Your task to perform on an android device: turn smart compose on in the gmail app Image 0: 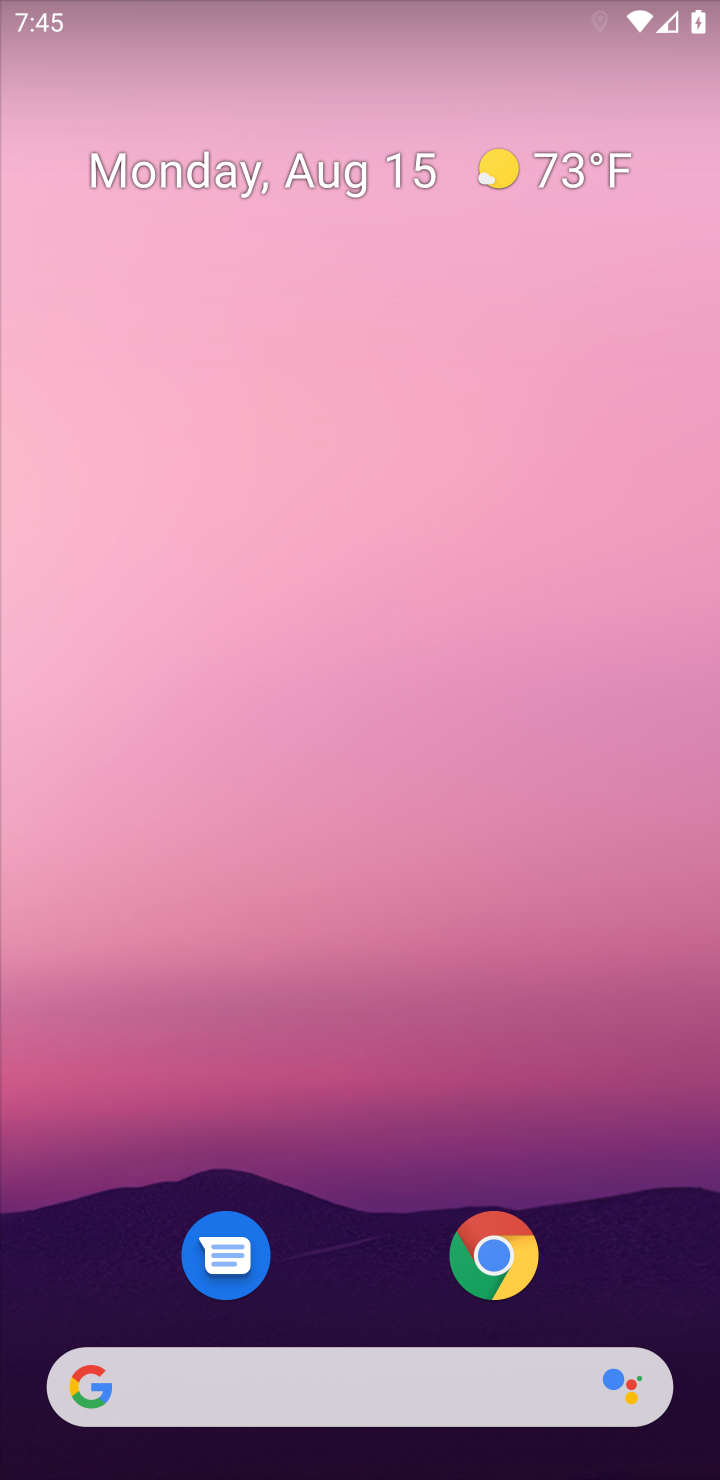
Step 0: drag from (375, 1291) to (338, 73)
Your task to perform on an android device: turn smart compose on in the gmail app Image 1: 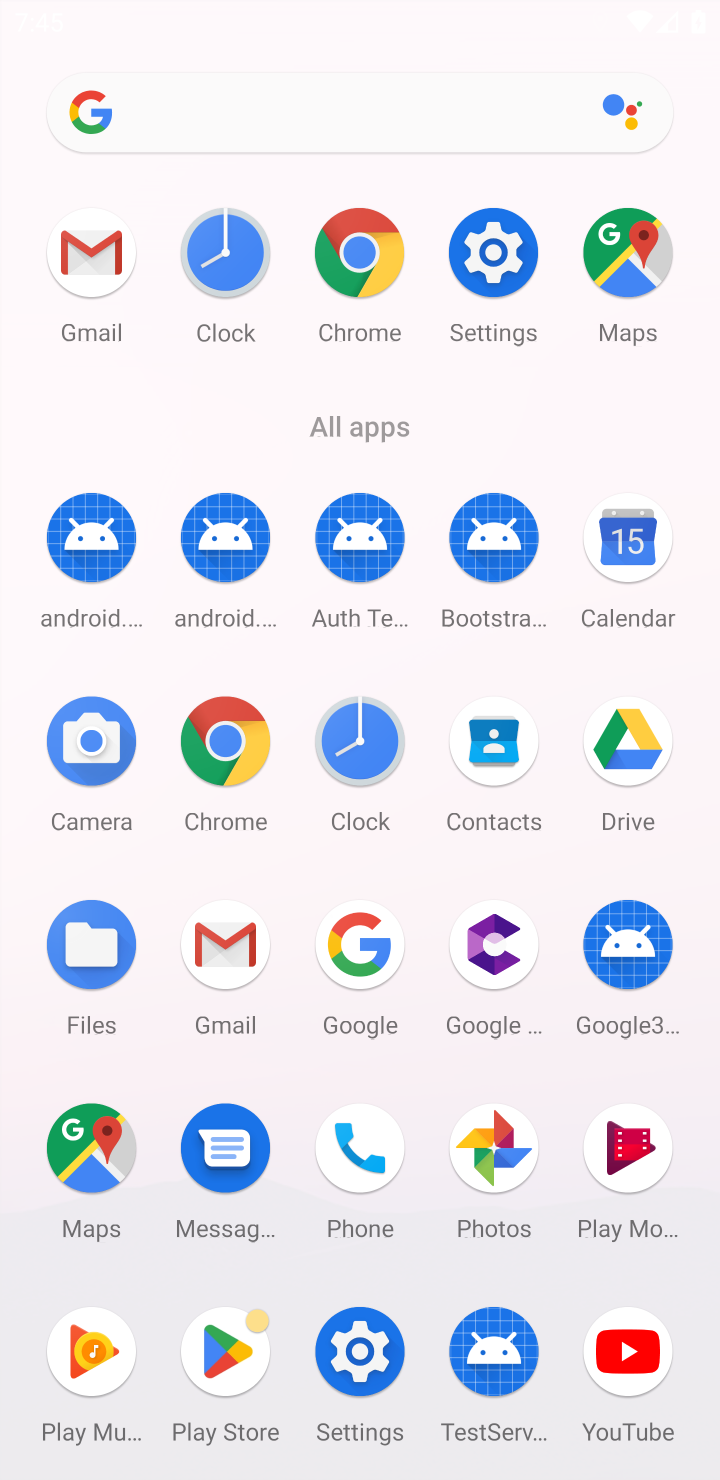
Step 1: click (225, 930)
Your task to perform on an android device: turn smart compose on in the gmail app Image 2: 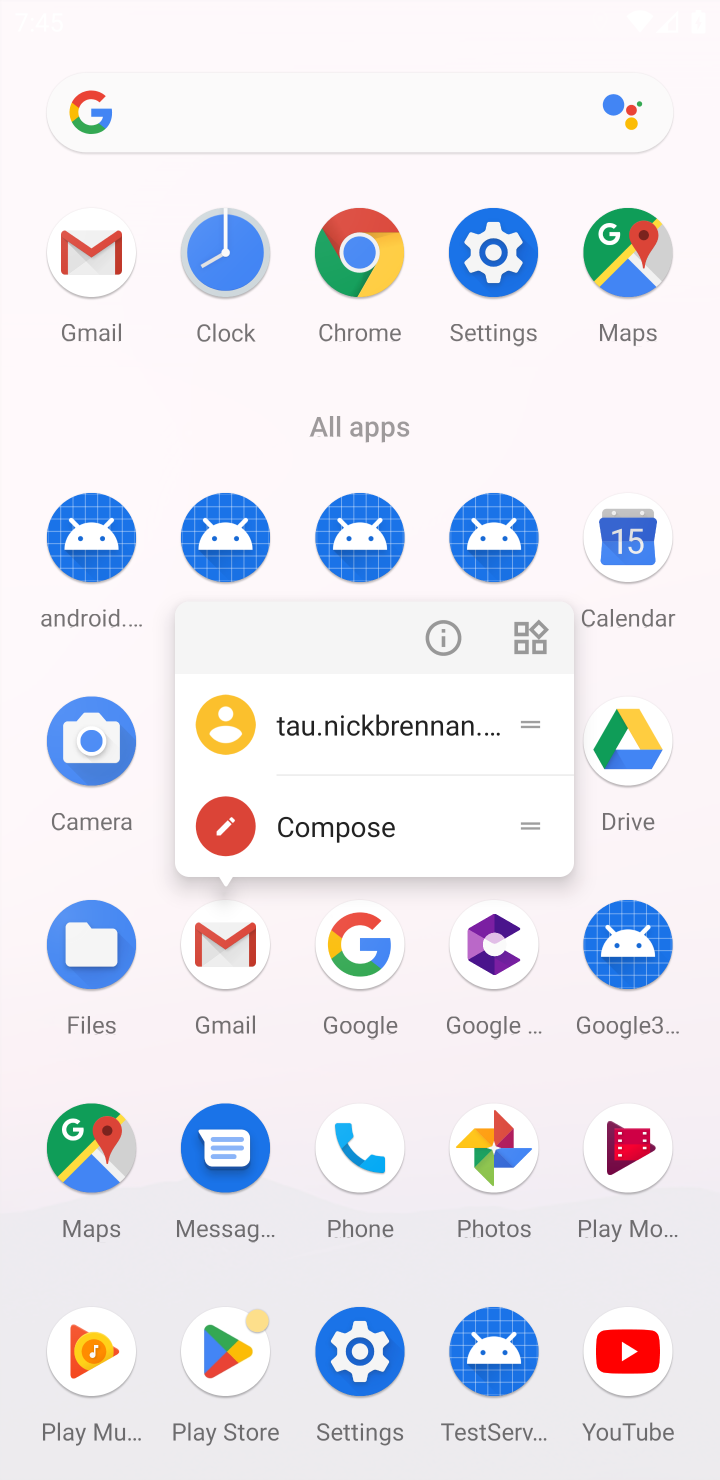
Step 2: click (218, 941)
Your task to perform on an android device: turn smart compose on in the gmail app Image 3: 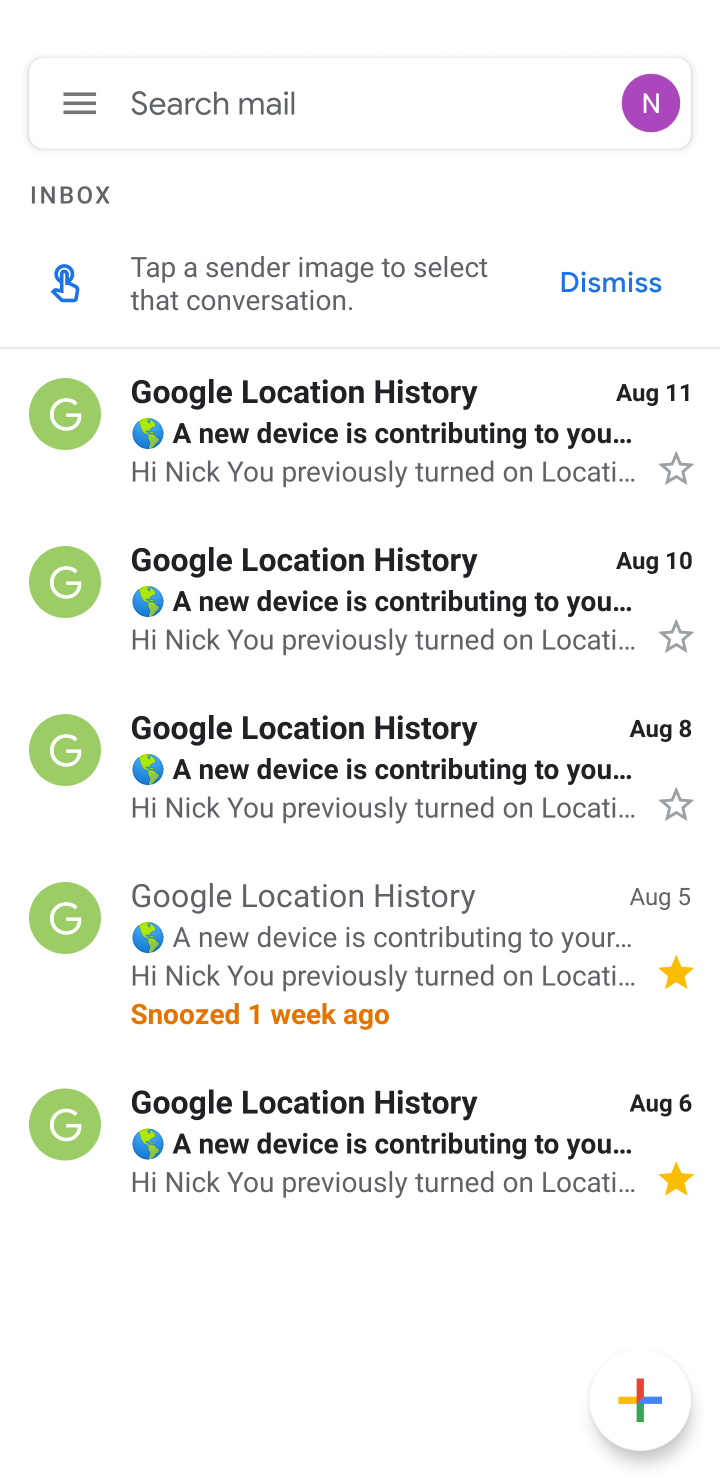
Step 3: click (72, 89)
Your task to perform on an android device: turn smart compose on in the gmail app Image 4: 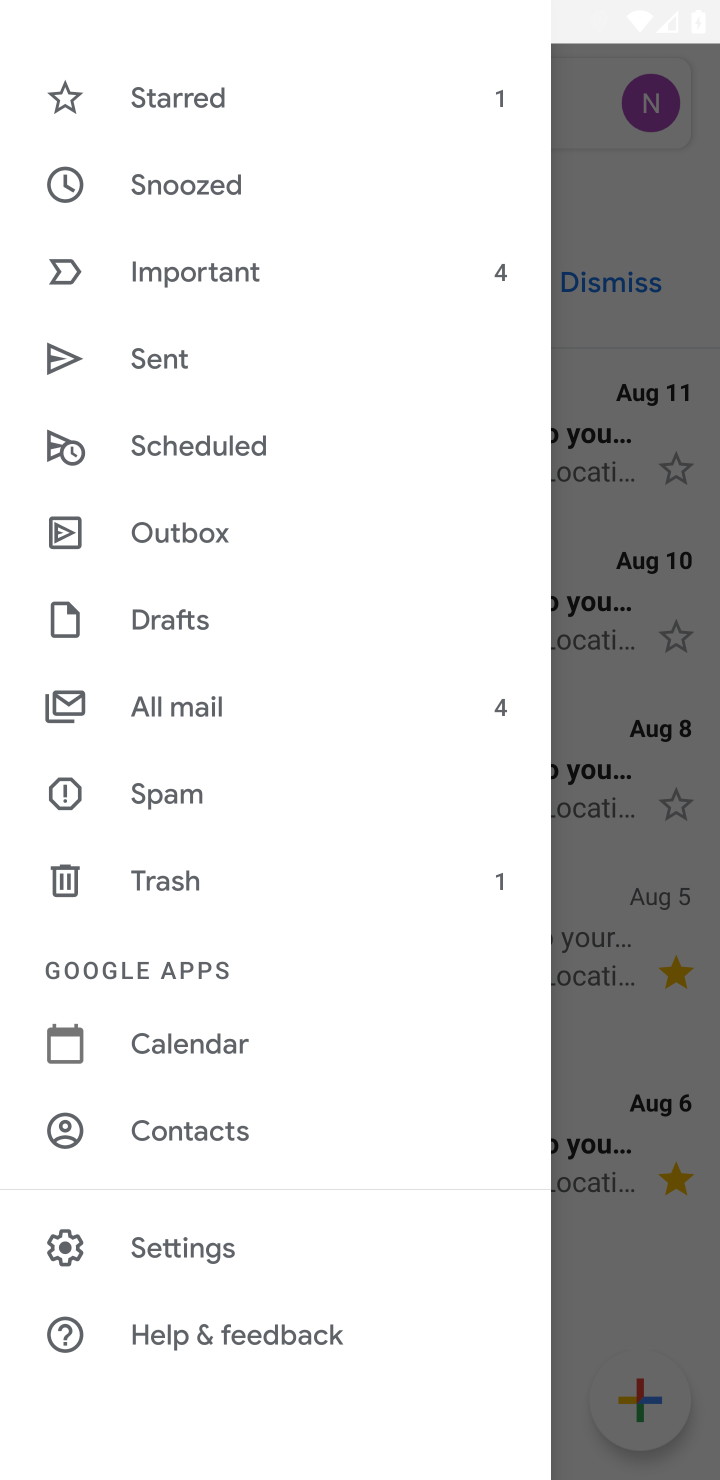
Step 4: click (246, 1246)
Your task to perform on an android device: turn smart compose on in the gmail app Image 5: 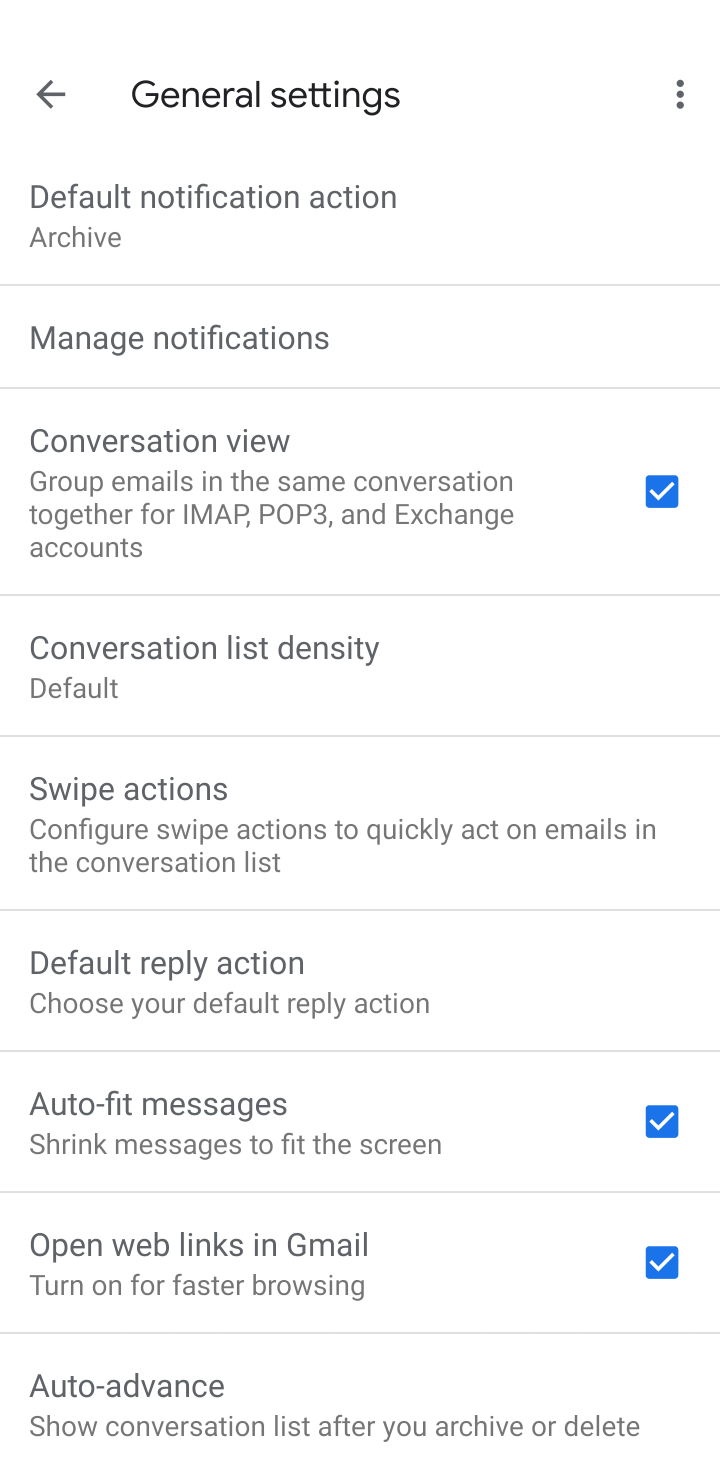
Step 5: click (50, 87)
Your task to perform on an android device: turn smart compose on in the gmail app Image 6: 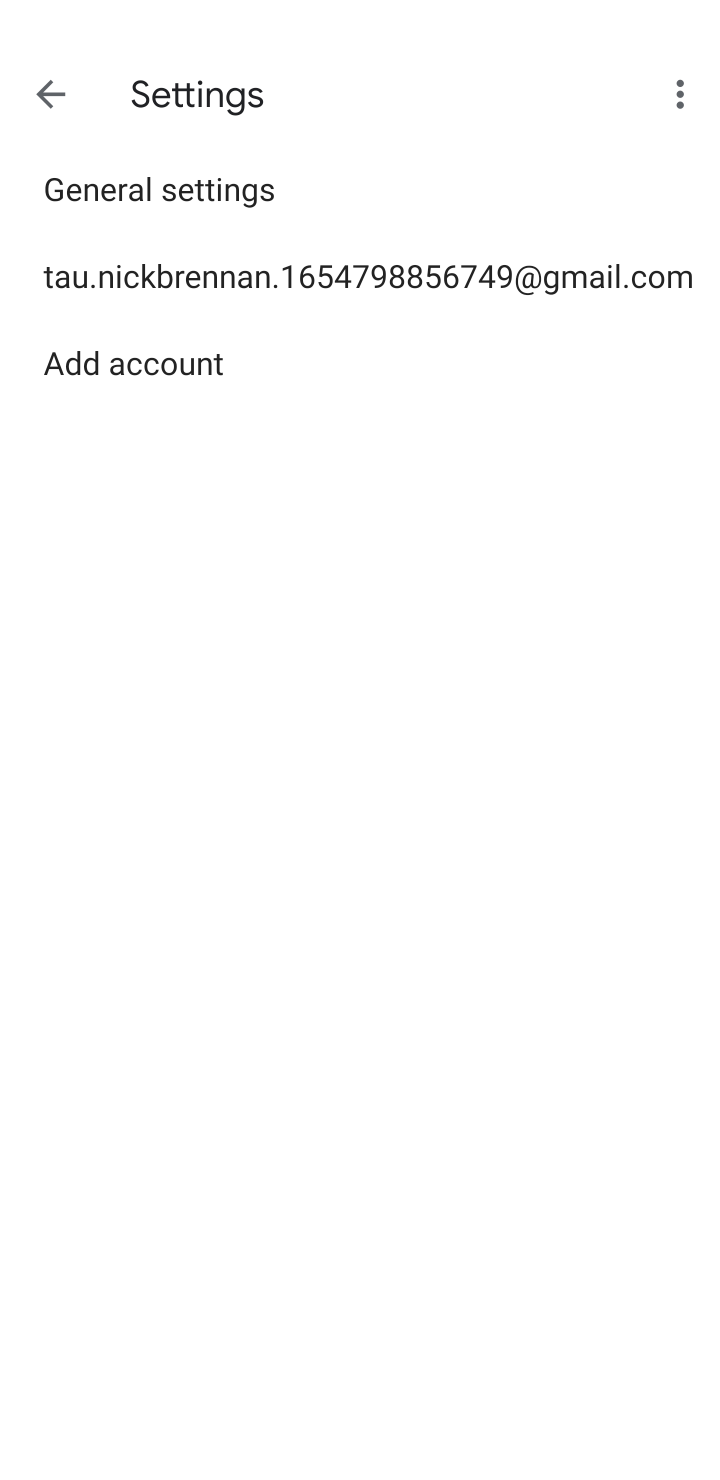
Step 6: click (288, 266)
Your task to perform on an android device: turn smart compose on in the gmail app Image 7: 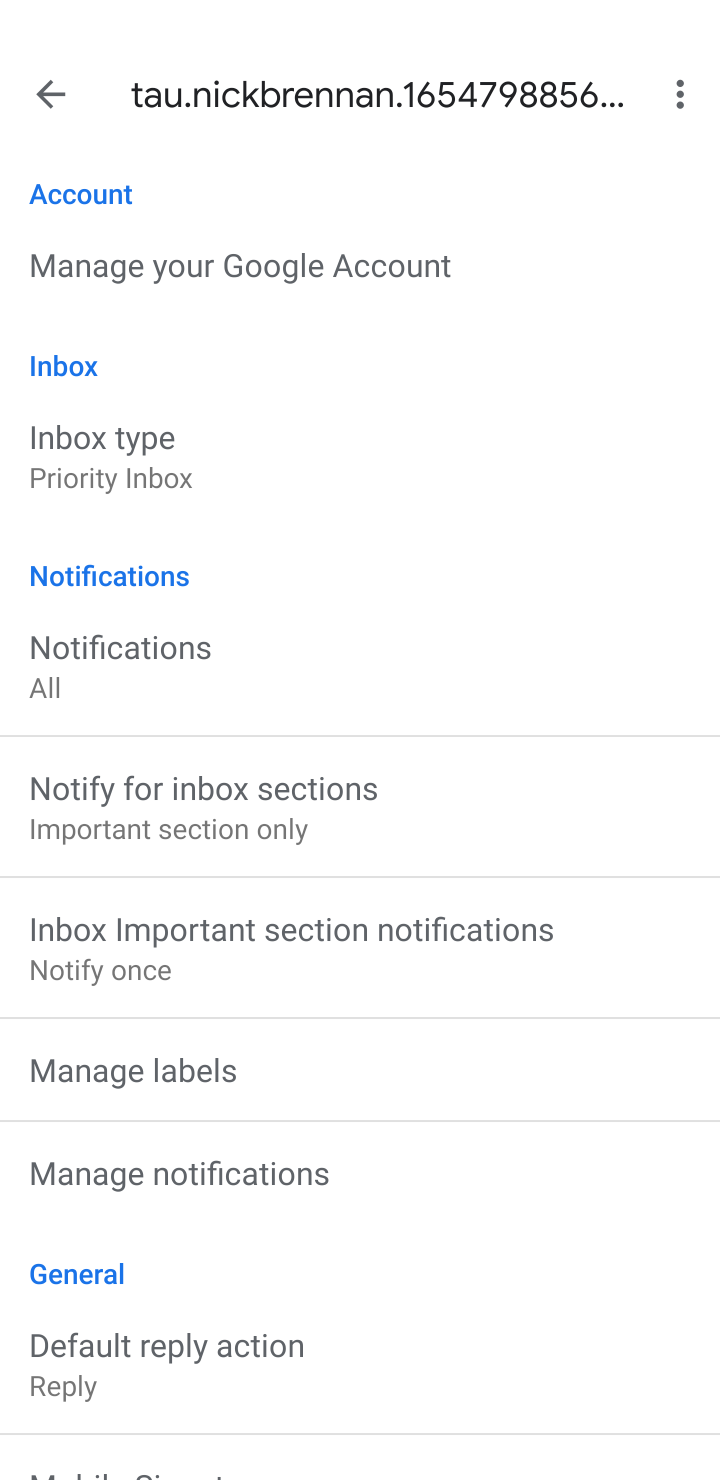
Step 7: task complete